Your task to perform on an android device: open sync settings in chrome Image 0: 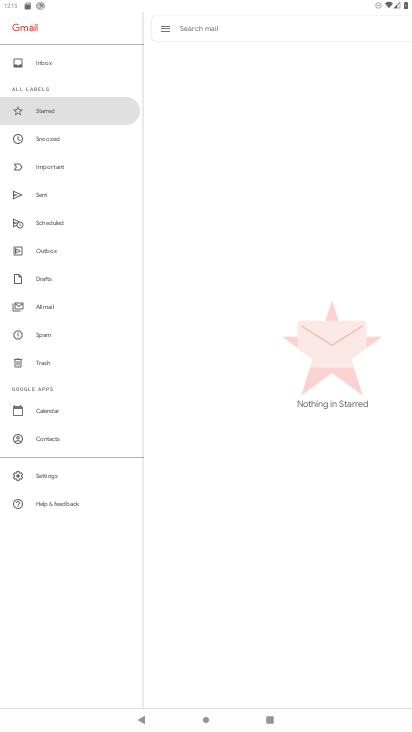
Step 0: press home button
Your task to perform on an android device: open sync settings in chrome Image 1: 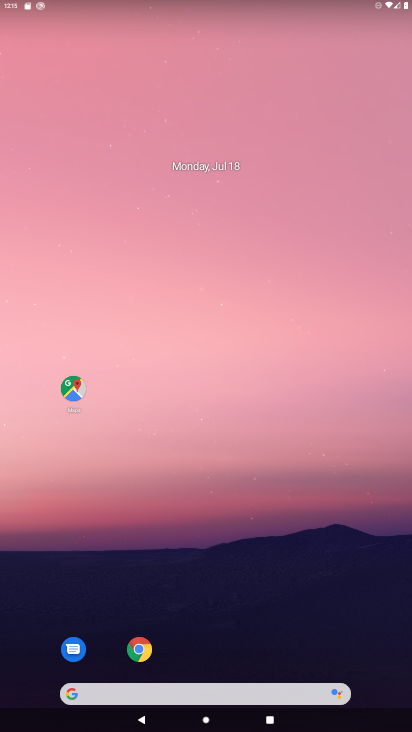
Step 1: click (82, 405)
Your task to perform on an android device: open sync settings in chrome Image 2: 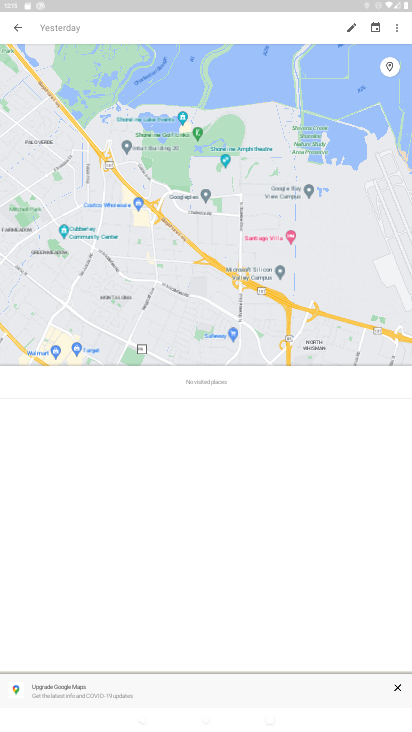
Step 2: click (8, 44)
Your task to perform on an android device: open sync settings in chrome Image 3: 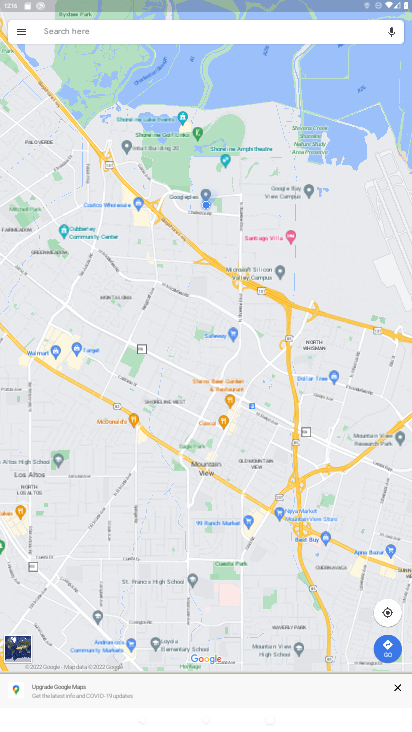
Step 3: press home button
Your task to perform on an android device: open sync settings in chrome Image 4: 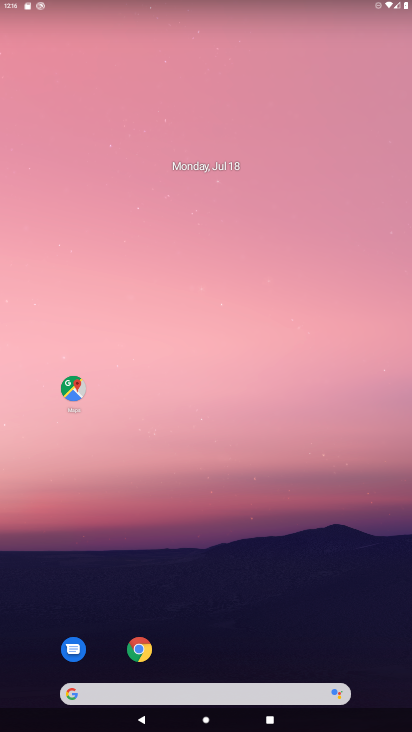
Step 4: click (139, 661)
Your task to perform on an android device: open sync settings in chrome Image 5: 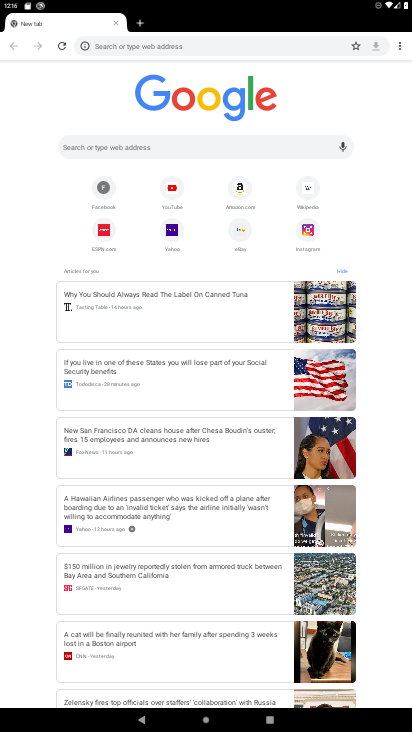
Step 5: click (405, 56)
Your task to perform on an android device: open sync settings in chrome Image 6: 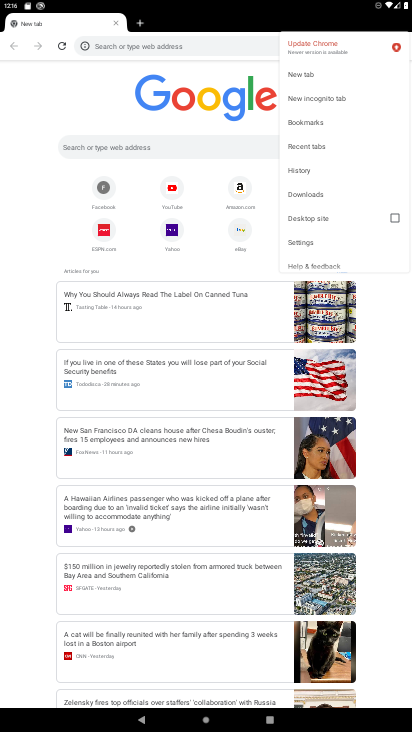
Step 6: click (312, 241)
Your task to perform on an android device: open sync settings in chrome Image 7: 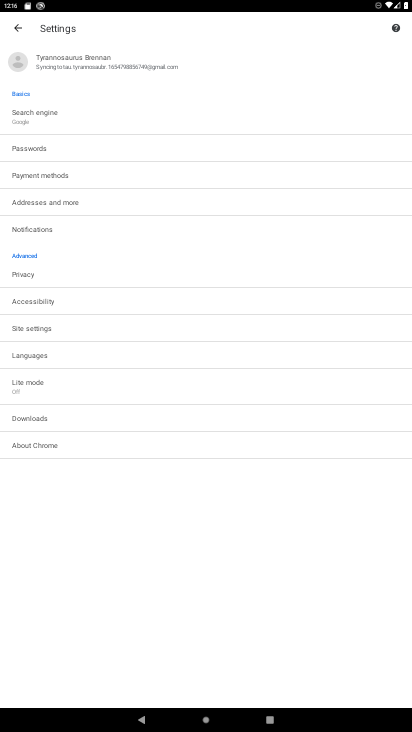
Step 7: click (61, 57)
Your task to perform on an android device: open sync settings in chrome Image 8: 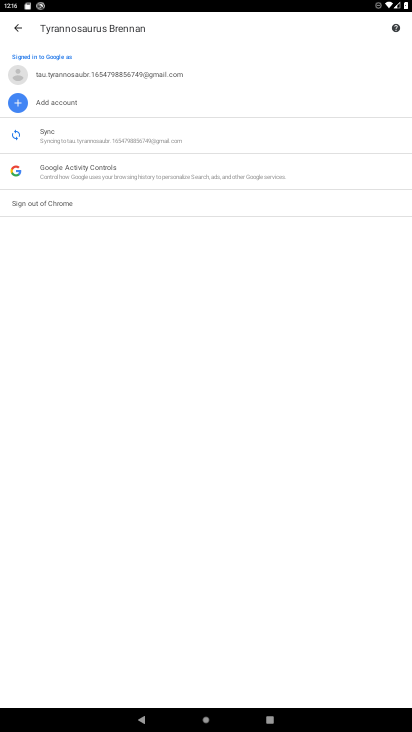
Step 8: click (109, 136)
Your task to perform on an android device: open sync settings in chrome Image 9: 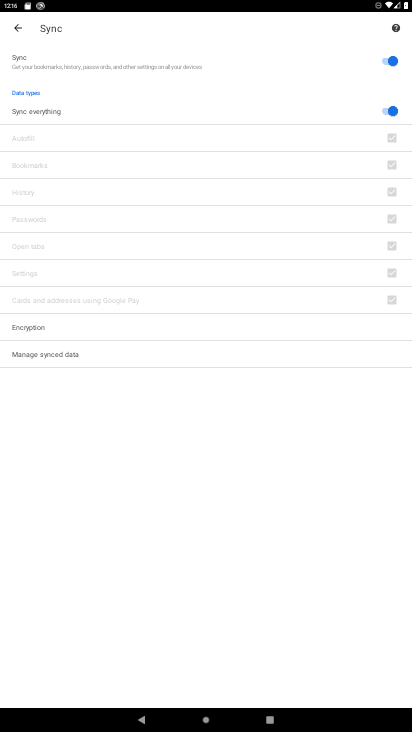
Step 9: task complete